Your task to perform on an android device: toggle data saver in the chrome app Image 0: 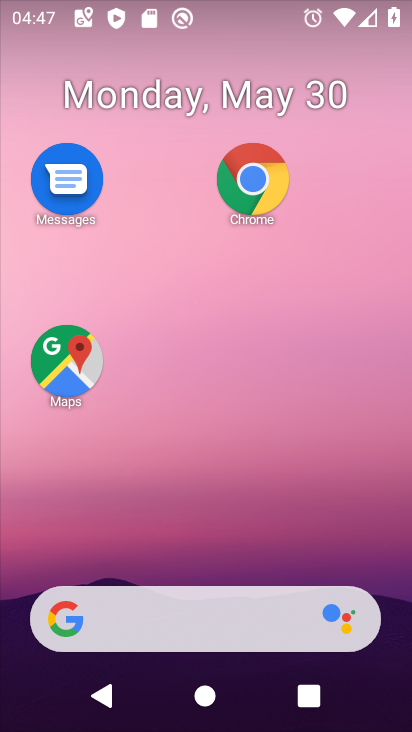
Step 0: click (251, 175)
Your task to perform on an android device: toggle data saver in the chrome app Image 1: 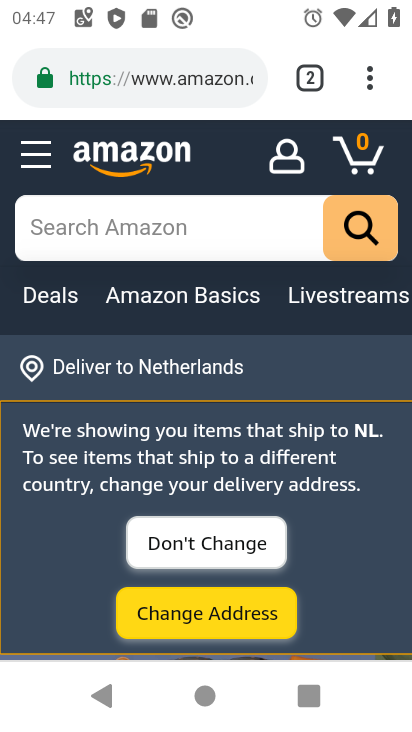
Step 1: click (369, 73)
Your task to perform on an android device: toggle data saver in the chrome app Image 2: 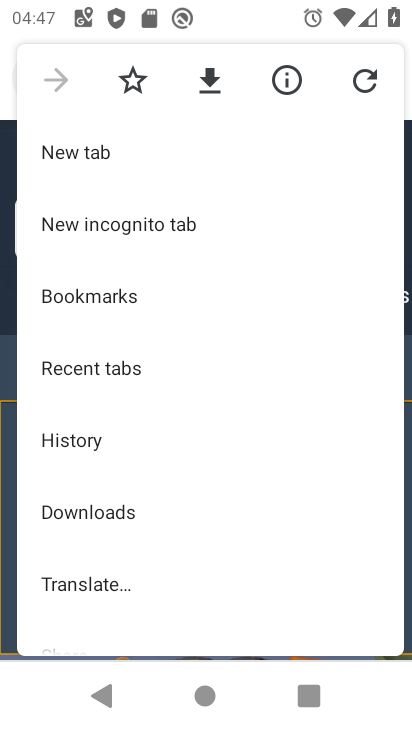
Step 2: drag from (113, 267) to (124, 189)
Your task to perform on an android device: toggle data saver in the chrome app Image 3: 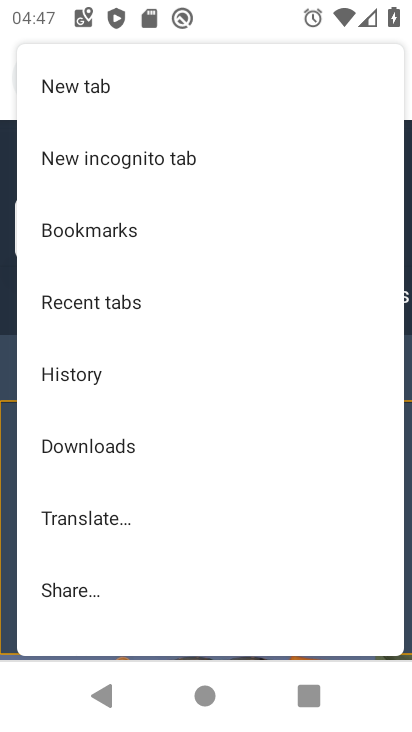
Step 3: drag from (130, 565) to (127, 195)
Your task to perform on an android device: toggle data saver in the chrome app Image 4: 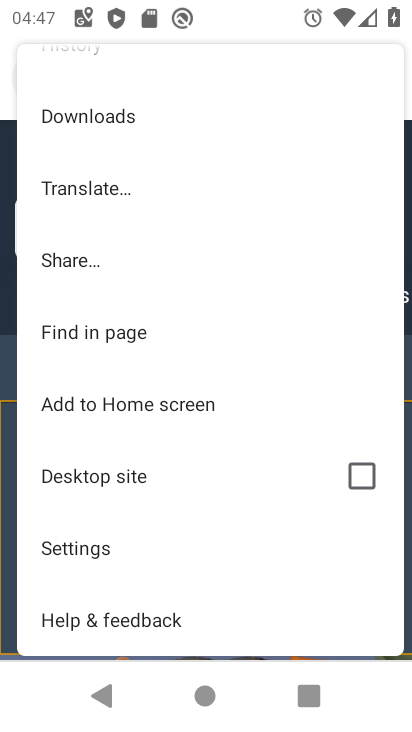
Step 4: click (84, 558)
Your task to perform on an android device: toggle data saver in the chrome app Image 5: 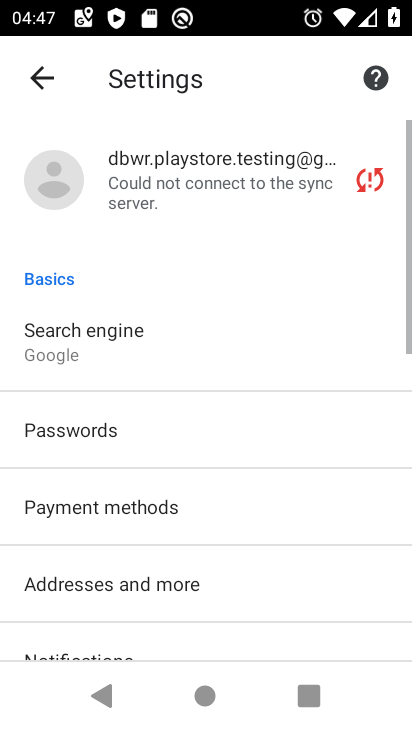
Step 5: drag from (117, 594) to (182, 198)
Your task to perform on an android device: toggle data saver in the chrome app Image 6: 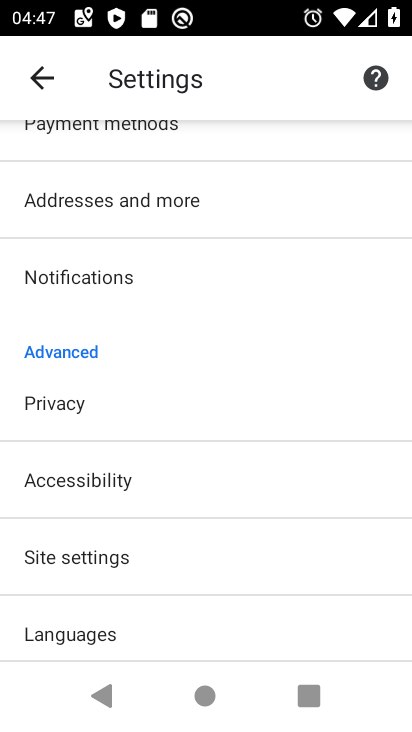
Step 6: click (82, 564)
Your task to perform on an android device: toggle data saver in the chrome app Image 7: 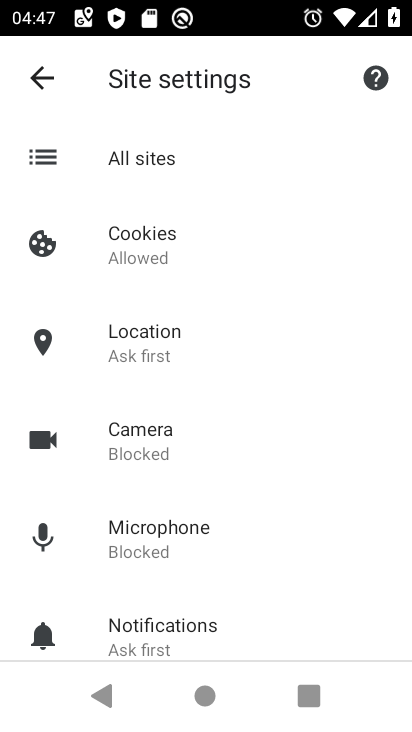
Step 7: press back button
Your task to perform on an android device: toggle data saver in the chrome app Image 8: 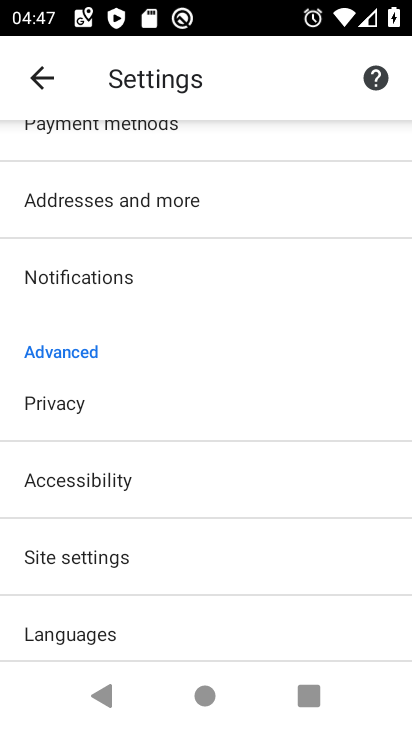
Step 8: drag from (90, 634) to (111, 408)
Your task to perform on an android device: toggle data saver in the chrome app Image 9: 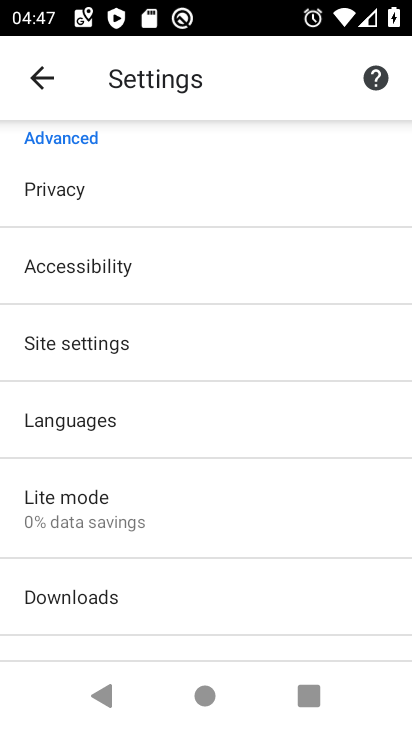
Step 9: click (104, 521)
Your task to perform on an android device: toggle data saver in the chrome app Image 10: 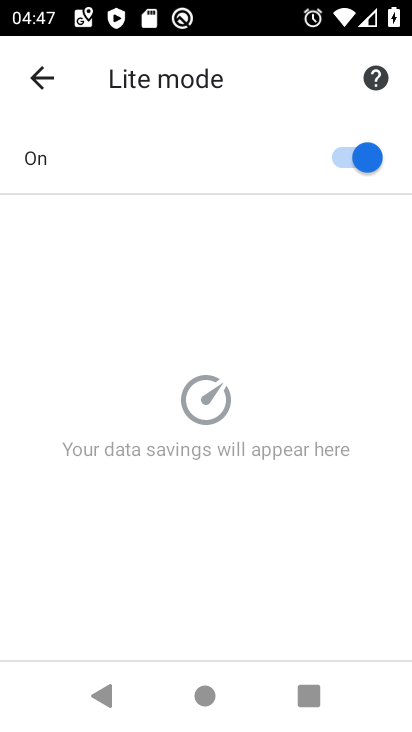
Step 10: click (340, 162)
Your task to perform on an android device: toggle data saver in the chrome app Image 11: 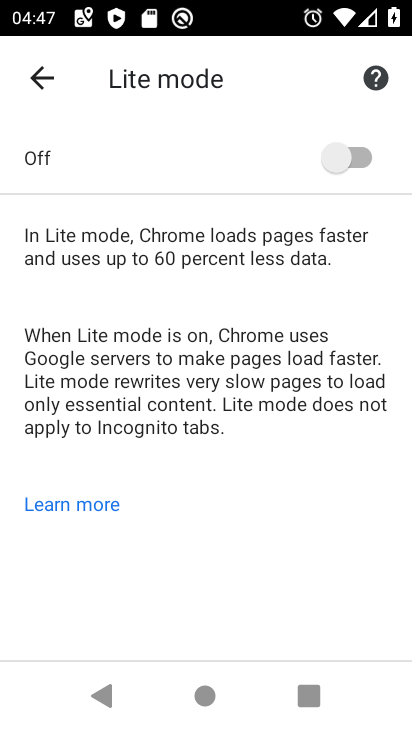
Step 11: task complete